Your task to perform on an android device: Go to sound settings Image 0: 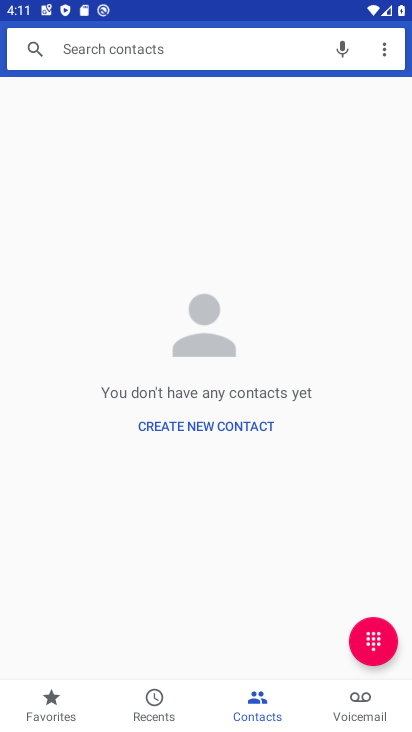
Step 0: press home button
Your task to perform on an android device: Go to sound settings Image 1: 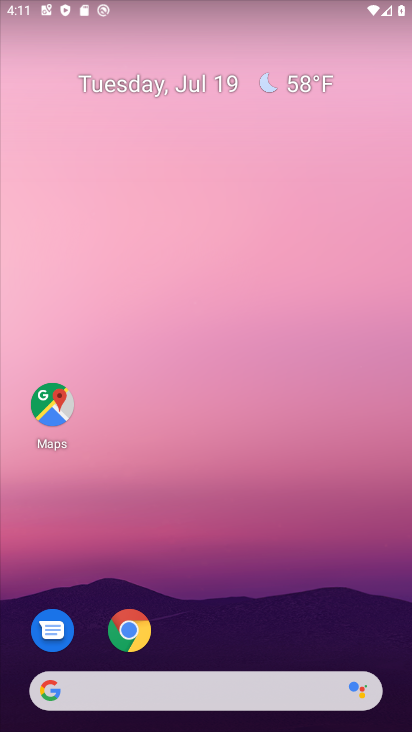
Step 1: drag from (26, 692) to (299, 16)
Your task to perform on an android device: Go to sound settings Image 2: 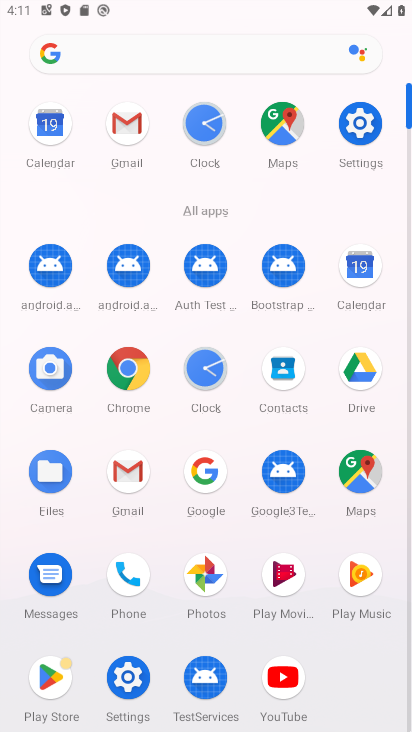
Step 2: click (118, 680)
Your task to perform on an android device: Go to sound settings Image 3: 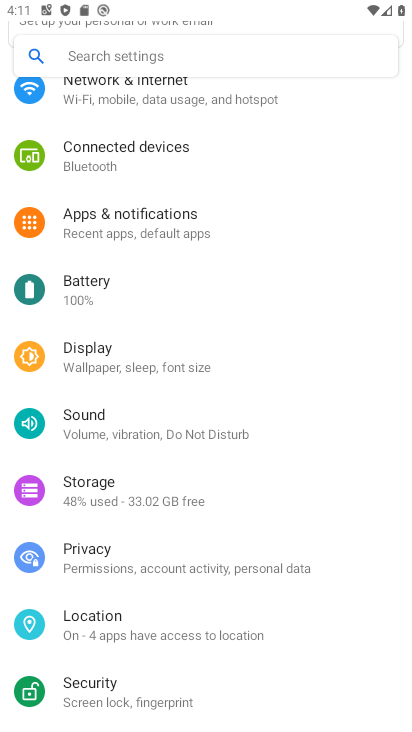
Step 3: click (102, 434)
Your task to perform on an android device: Go to sound settings Image 4: 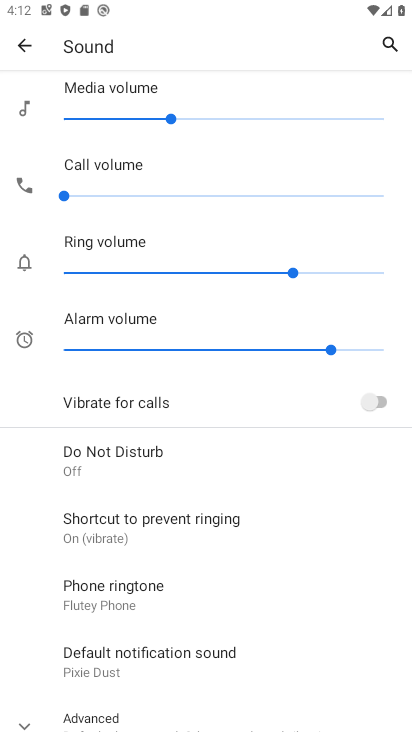
Step 4: task complete